Your task to perform on an android device: turn pop-ups off in chrome Image 0: 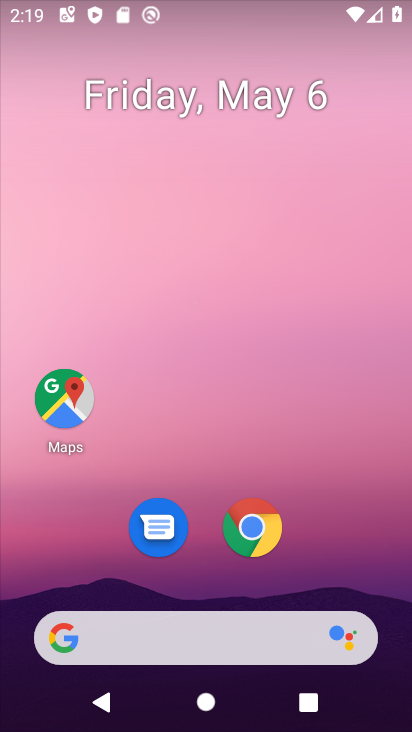
Step 0: drag from (344, 539) to (354, 139)
Your task to perform on an android device: turn pop-ups off in chrome Image 1: 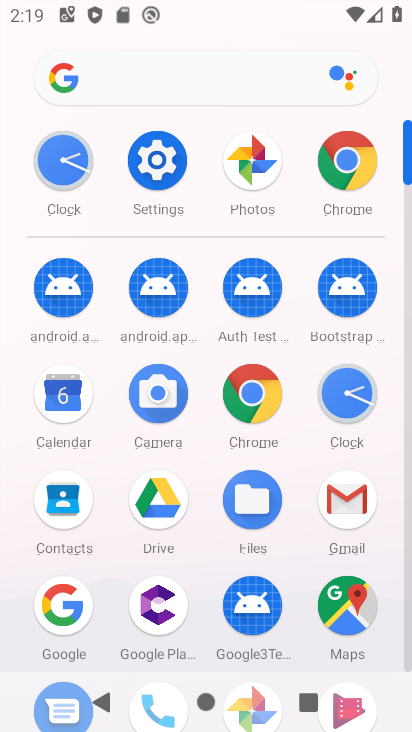
Step 1: click (342, 176)
Your task to perform on an android device: turn pop-ups off in chrome Image 2: 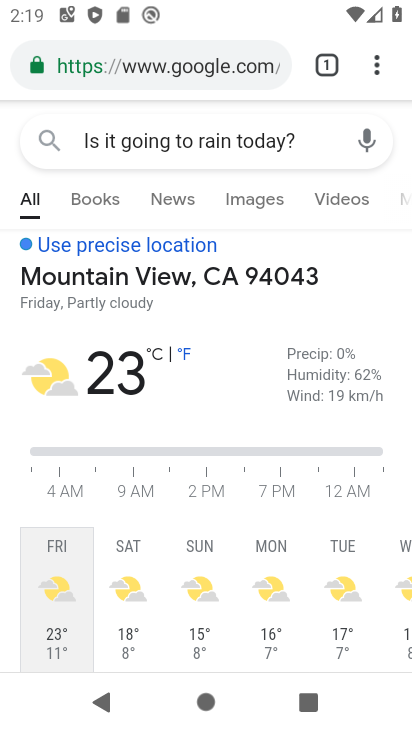
Step 2: click (380, 63)
Your task to perform on an android device: turn pop-ups off in chrome Image 3: 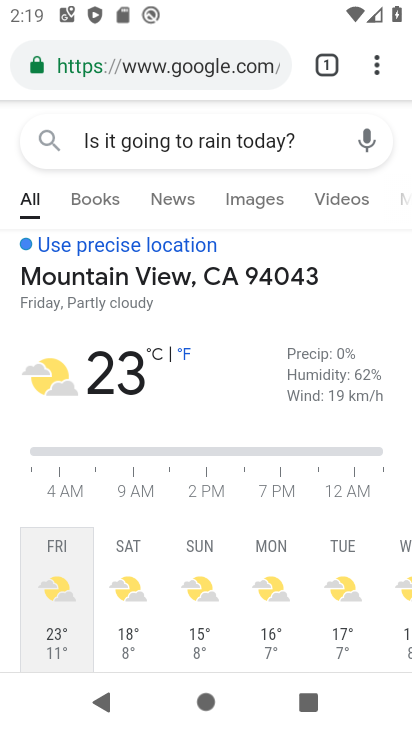
Step 3: drag from (380, 65) to (141, 564)
Your task to perform on an android device: turn pop-ups off in chrome Image 4: 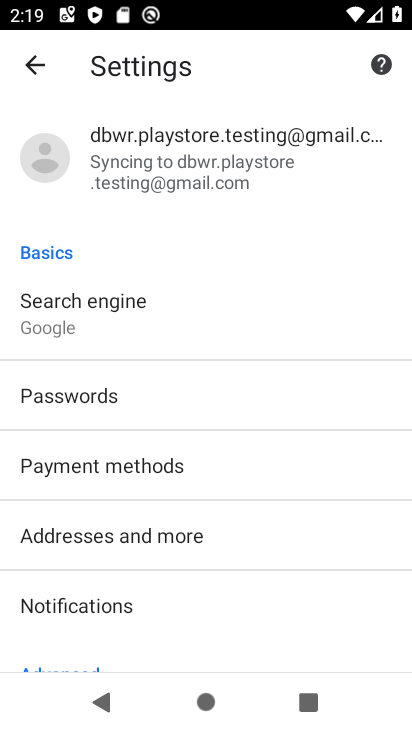
Step 4: drag from (252, 655) to (254, 267)
Your task to perform on an android device: turn pop-ups off in chrome Image 5: 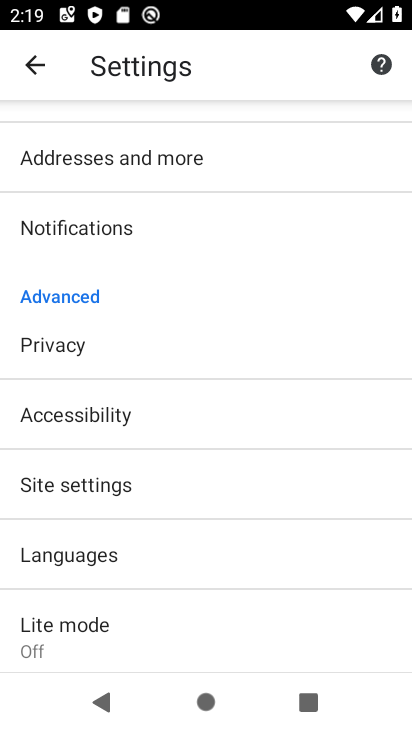
Step 5: click (122, 488)
Your task to perform on an android device: turn pop-ups off in chrome Image 6: 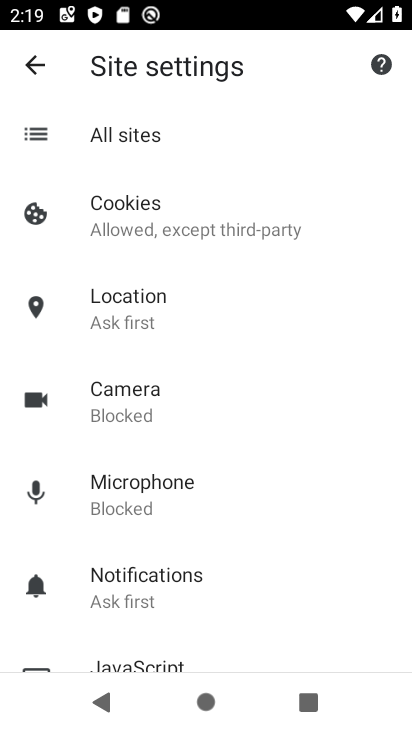
Step 6: drag from (304, 555) to (322, 312)
Your task to perform on an android device: turn pop-ups off in chrome Image 7: 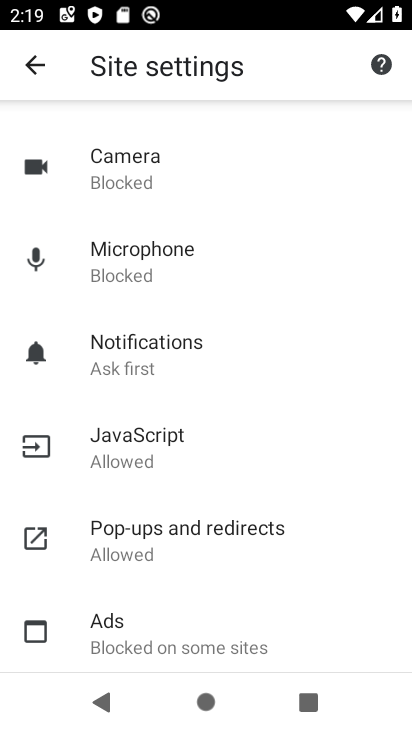
Step 7: click (207, 522)
Your task to perform on an android device: turn pop-ups off in chrome Image 8: 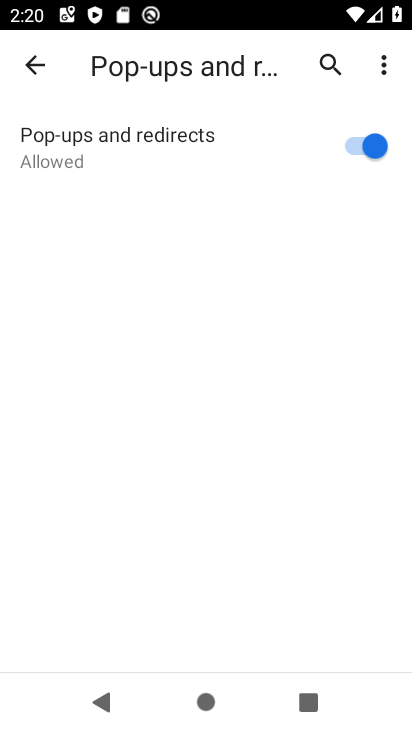
Step 8: click (355, 148)
Your task to perform on an android device: turn pop-ups off in chrome Image 9: 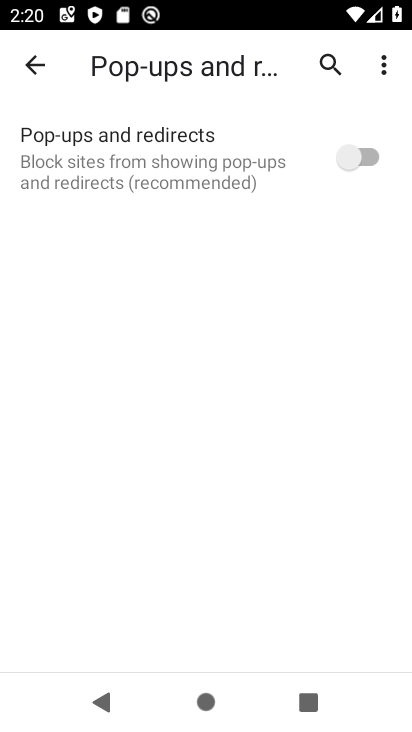
Step 9: task complete